Your task to perform on an android device: Turn on the flashlight Image 0: 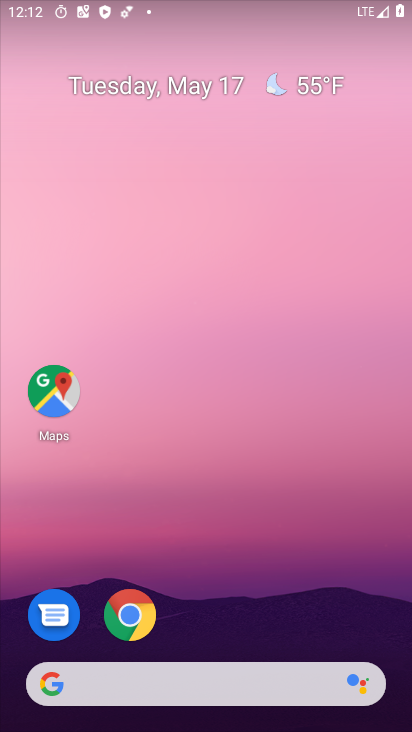
Step 0: drag from (230, 3) to (206, 468)
Your task to perform on an android device: Turn on the flashlight Image 1: 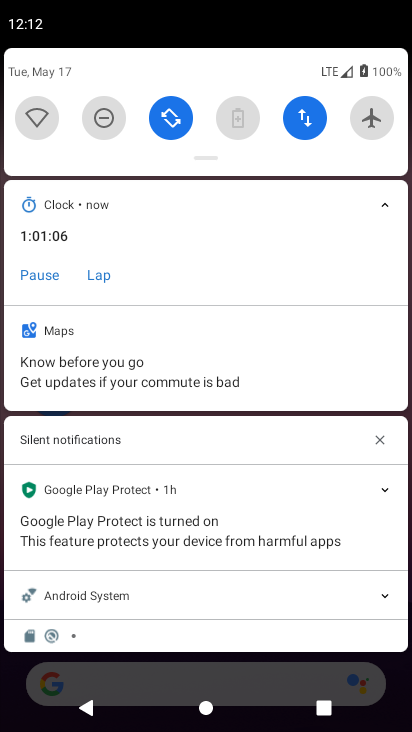
Step 1: task complete